Your task to perform on an android device: open the mobile data screen to see how much data has been used Image 0: 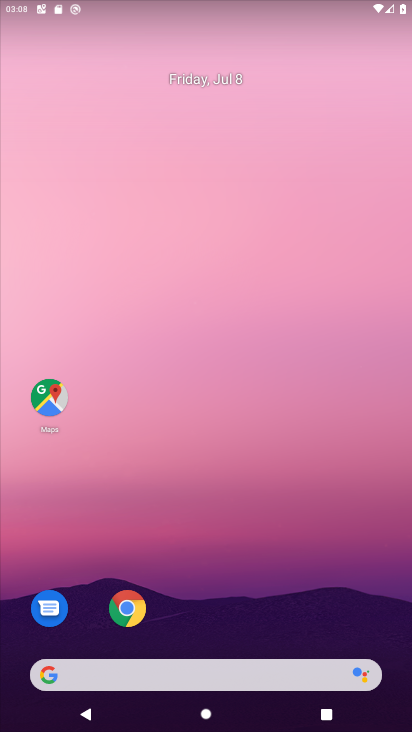
Step 0: drag from (244, 614) to (192, 266)
Your task to perform on an android device: open the mobile data screen to see how much data has been used Image 1: 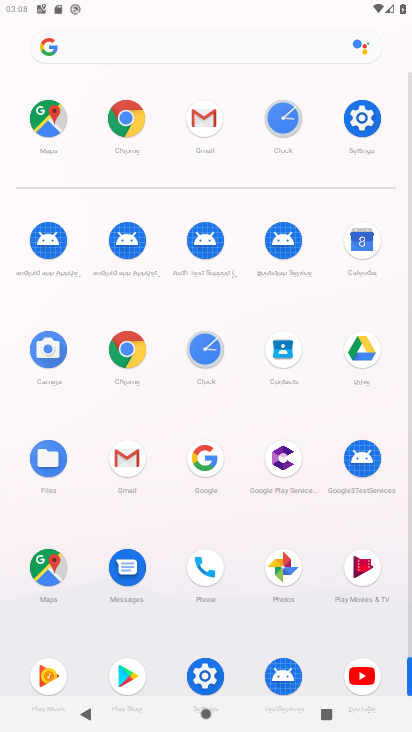
Step 1: click (351, 108)
Your task to perform on an android device: open the mobile data screen to see how much data has been used Image 2: 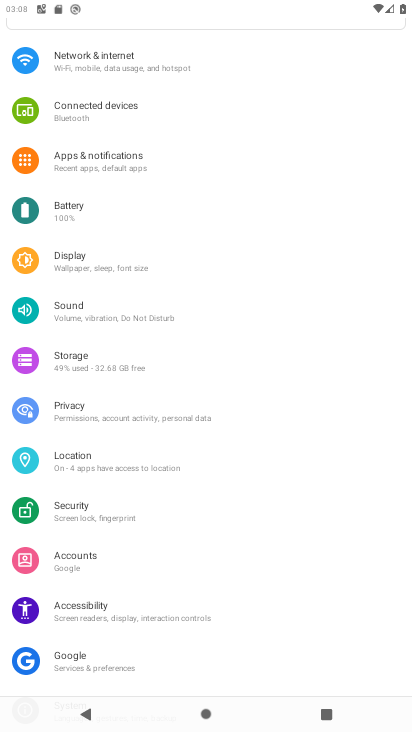
Step 2: click (82, 64)
Your task to perform on an android device: open the mobile data screen to see how much data has been used Image 3: 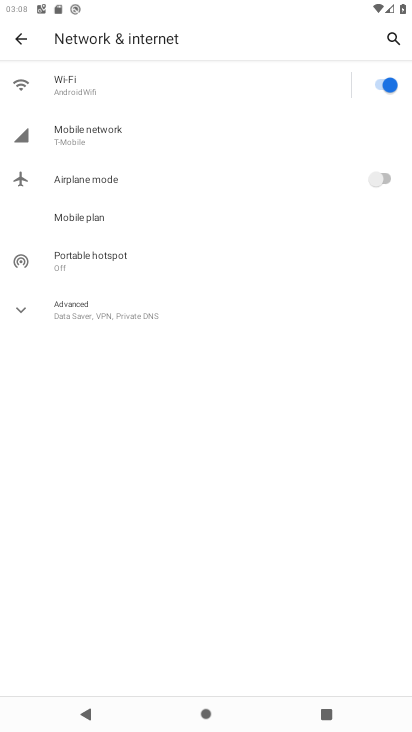
Step 3: click (102, 117)
Your task to perform on an android device: open the mobile data screen to see how much data has been used Image 4: 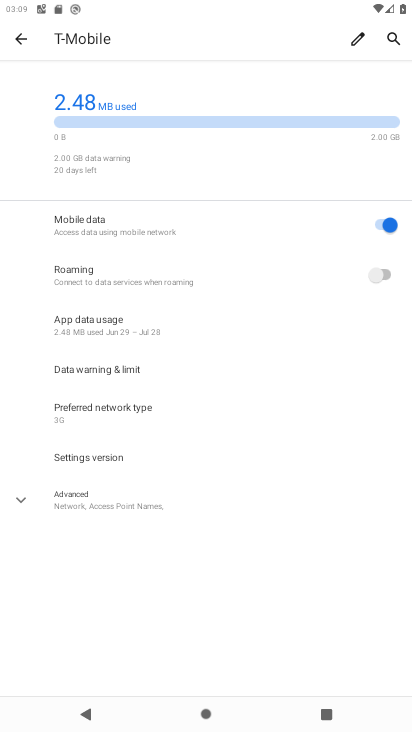
Step 4: task complete